Your task to perform on an android device: change text size in settings app Image 0: 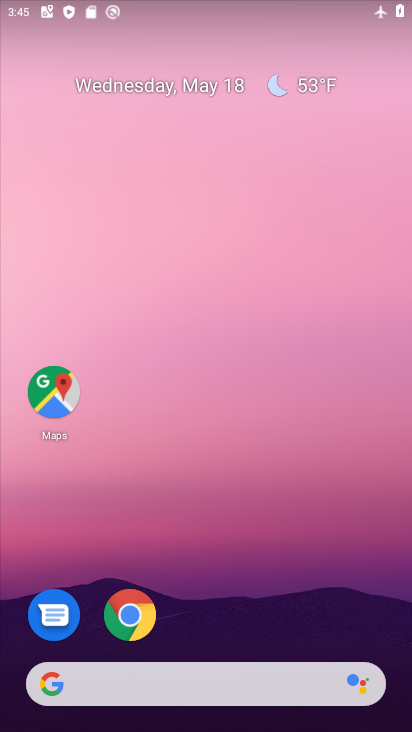
Step 0: drag from (239, 608) to (206, 111)
Your task to perform on an android device: change text size in settings app Image 1: 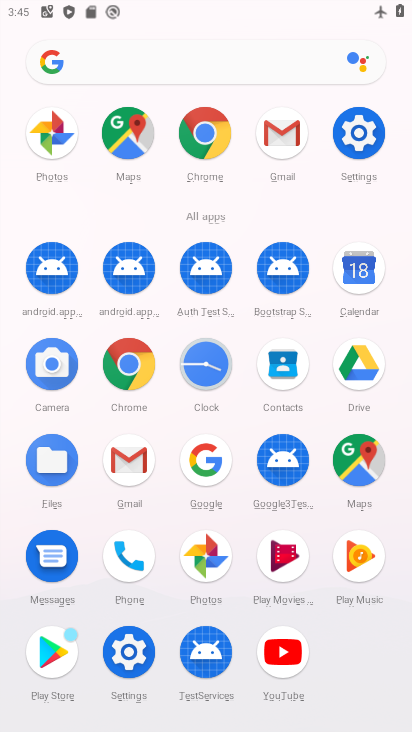
Step 1: click (367, 125)
Your task to perform on an android device: change text size in settings app Image 2: 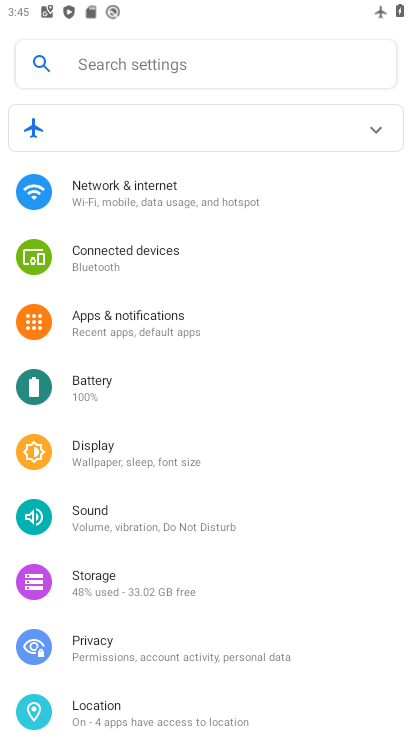
Step 2: click (139, 458)
Your task to perform on an android device: change text size in settings app Image 3: 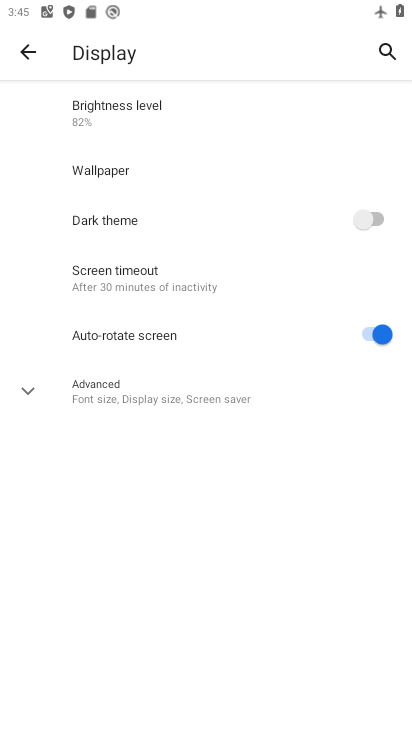
Step 3: click (139, 382)
Your task to perform on an android device: change text size in settings app Image 4: 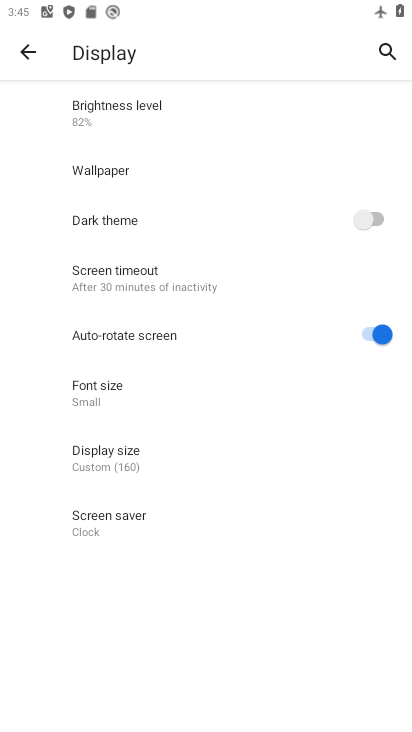
Step 4: click (120, 398)
Your task to perform on an android device: change text size in settings app Image 5: 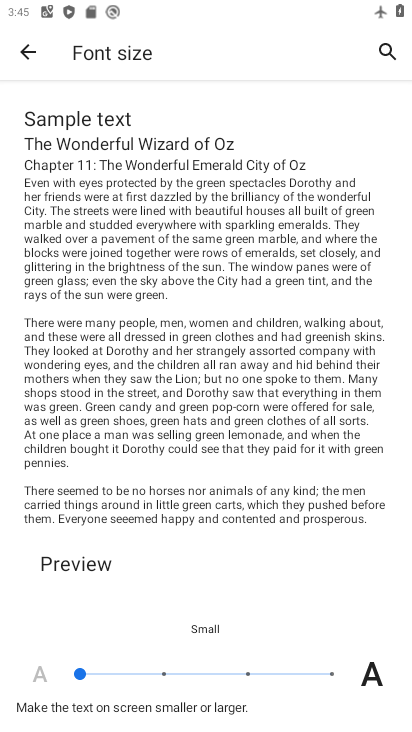
Step 5: click (110, 666)
Your task to perform on an android device: change text size in settings app Image 6: 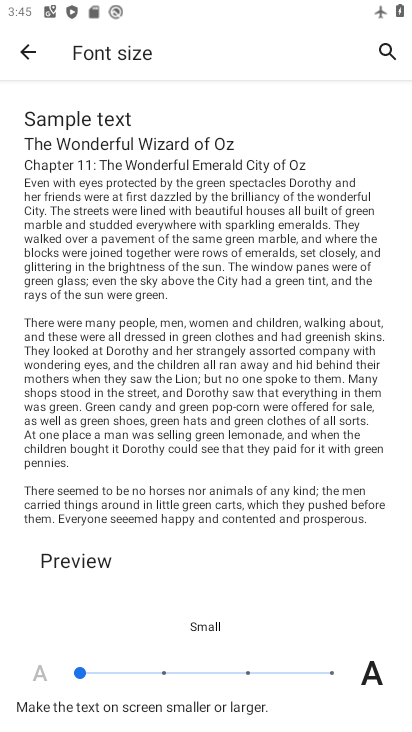
Step 6: click (136, 676)
Your task to perform on an android device: change text size in settings app Image 7: 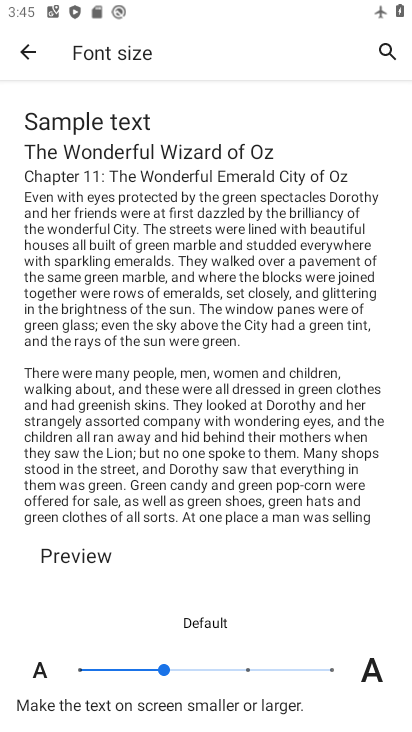
Step 7: task complete